Your task to perform on an android device: visit the assistant section in the google photos Image 0: 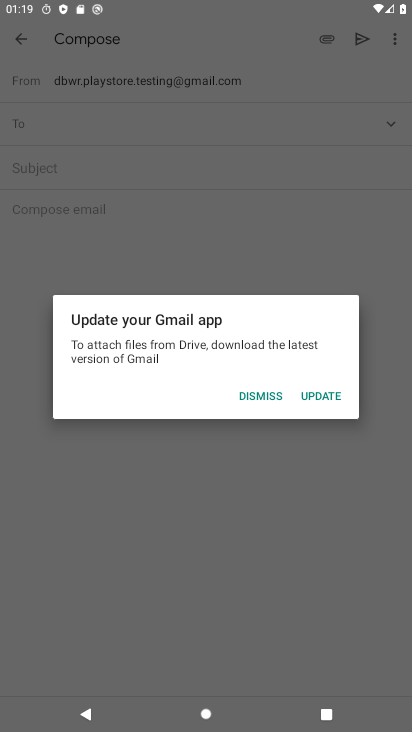
Step 0: press home button
Your task to perform on an android device: visit the assistant section in the google photos Image 1: 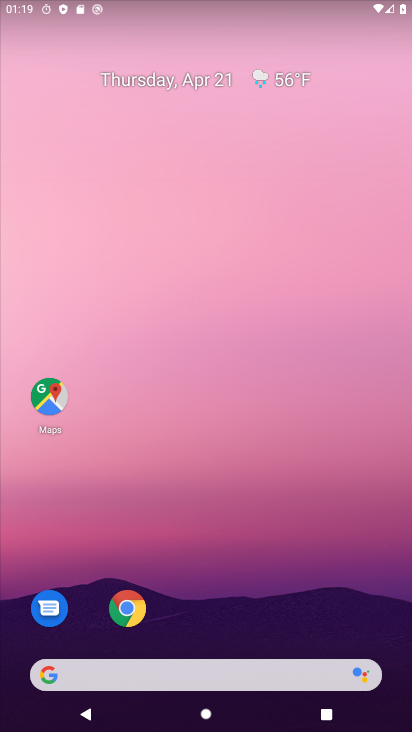
Step 1: drag from (211, 604) to (120, 111)
Your task to perform on an android device: visit the assistant section in the google photos Image 2: 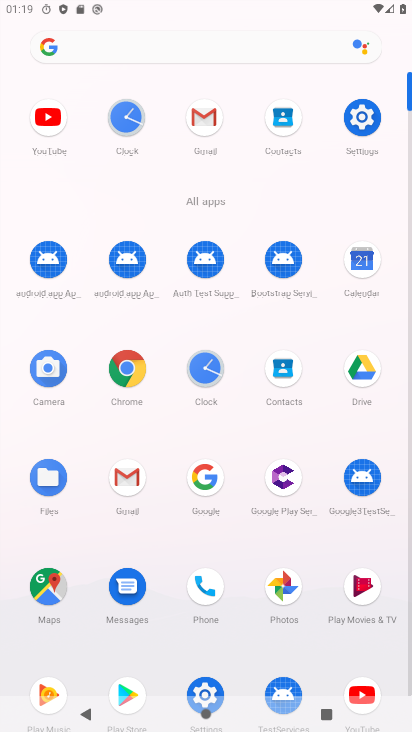
Step 2: click (285, 588)
Your task to perform on an android device: visit the assistant section in the google photos Image 3: 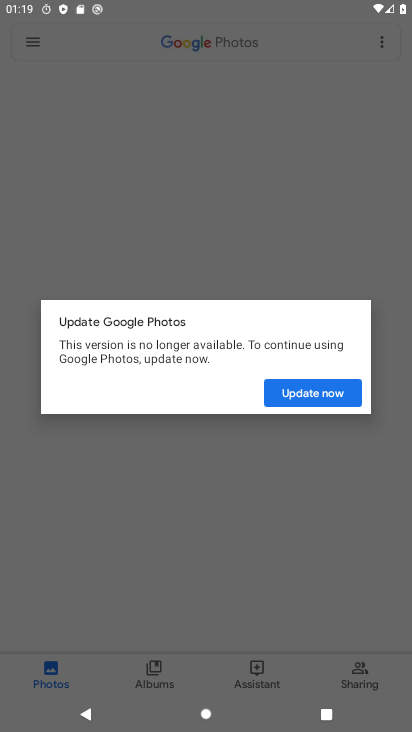
Step 3: click (317, 386)
Your task to perform on an android device: visit the assistant section in the google photos Image 4: 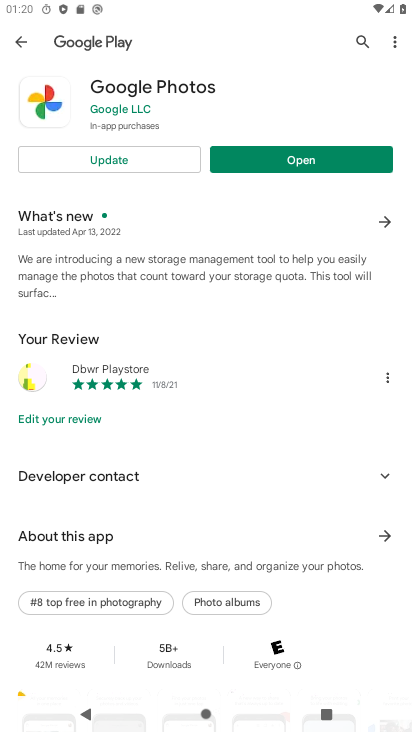
Step 4: click (158, 158)
Your task to perform on an android device: visit the assistant section in the google photos Image 5: 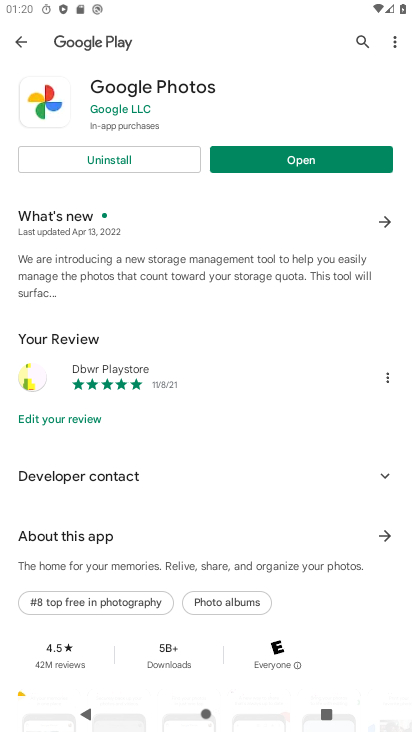
Step 5: click (242, 167)
Your task to perform on an android device: visit the assistant section in the google photos Image 6: 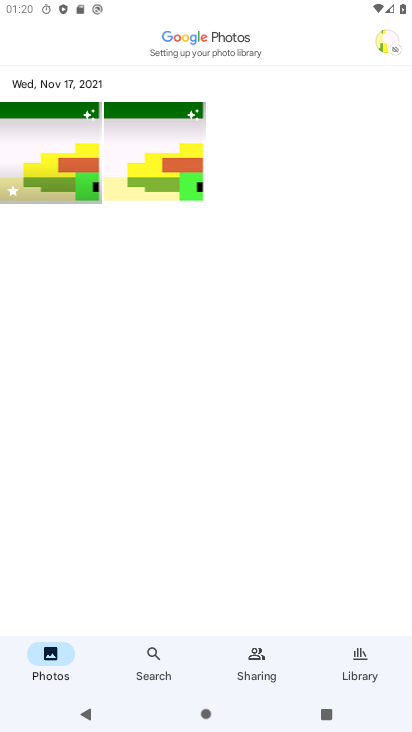
Step 6: click (140, 663)
Your task to perform on an android device: visit the assistant section in the google photos Image 7: 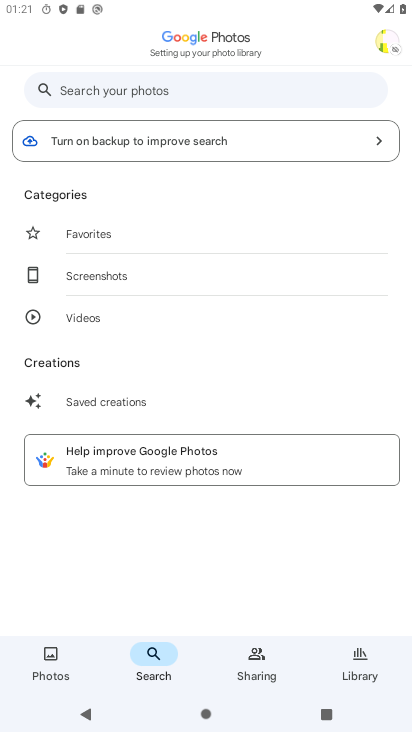
Step 7: click (182, 82)
Your task to perform on an android device: visit the assistant section in the google photos Image 8: 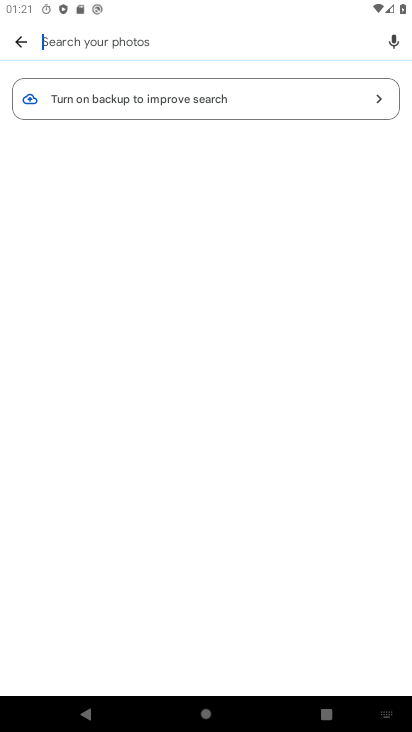
Step 8: type "assistant"
Your task to perform on an android device: visit the assistant section in the google photos Image 9: 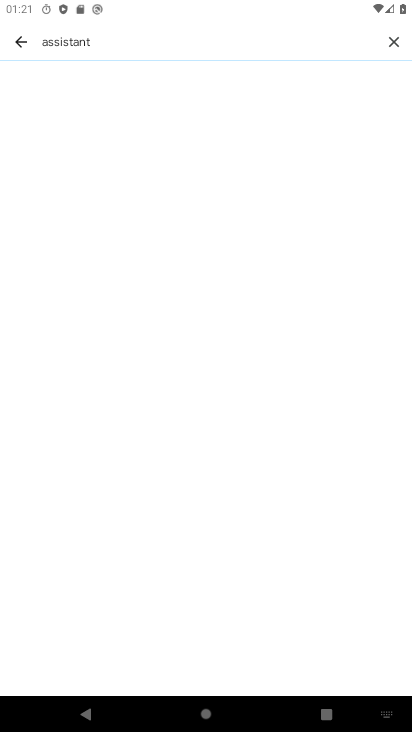
Step 9: task complete